Your task to perform on an android device: Go to battery settings Image 0: 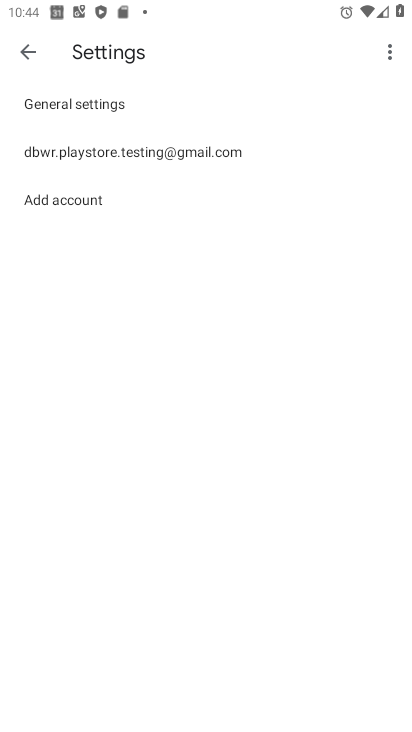
Step 0: press home button
Your task to perform on an android device: Go to battery settings Image 1: 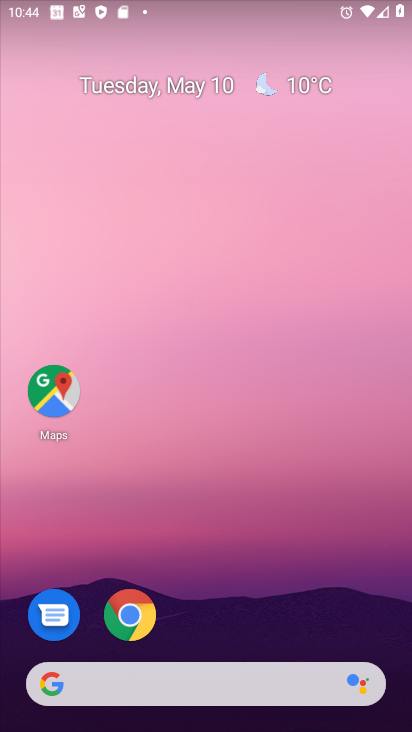
Step 1: drag from (221, 635) to (232, 468)
Your task to perform on an android device: Go to battery settings Image 2: 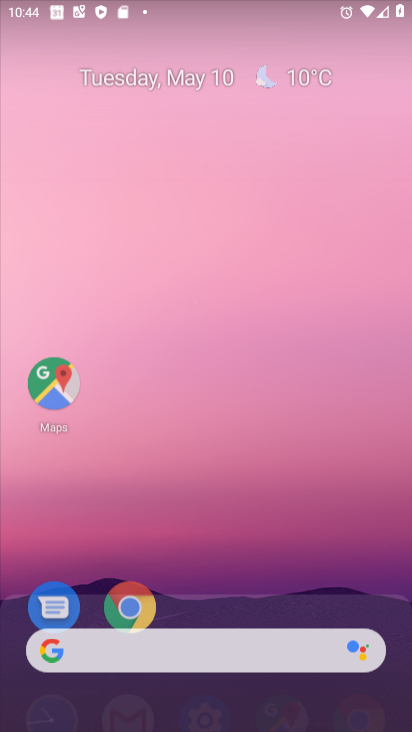
Step 2: drag from (256, 121) to (259, 76)
Your task to perform on an android device: Go to battery settings Image 3: 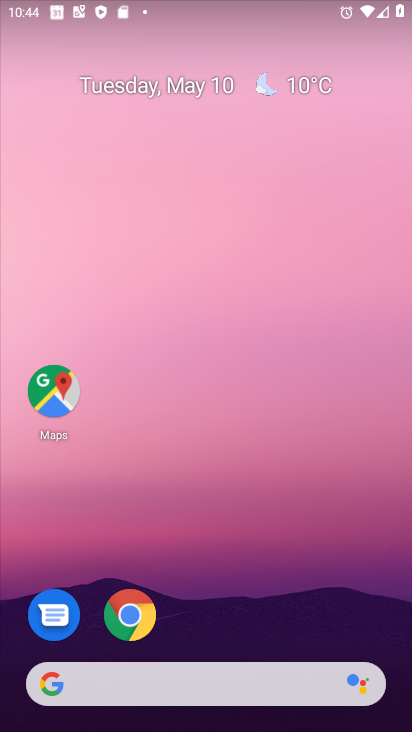
Step 3: drag from (220, 651) to (234, 108)
Your task to perform on an android device: Go to battery settings Image 4: 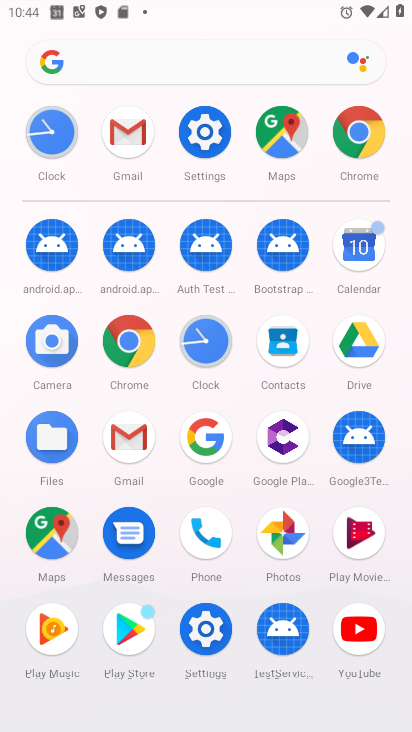
Step 4: click (202, 130)
Your task to perform on an android device: Go to battery settings Image 5: 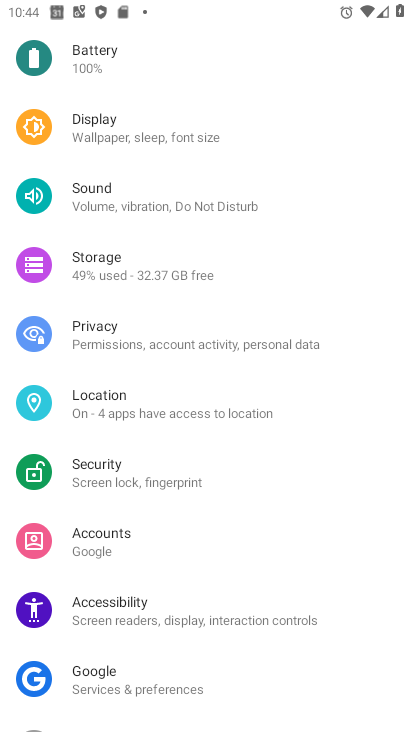
Step 5: click (133, 59)
Your task to perform on an android device: Go to battery settings Image 6: 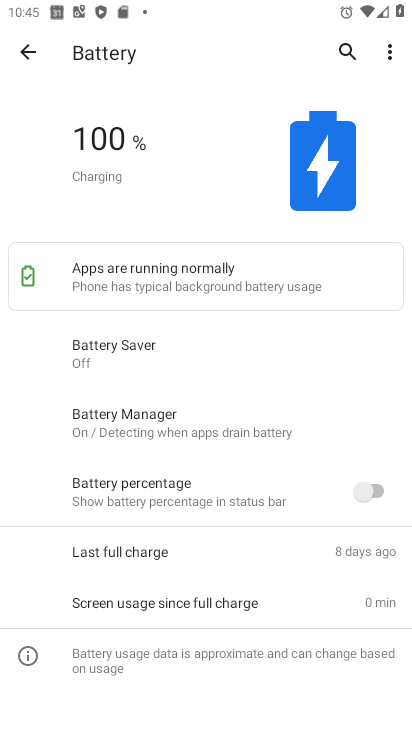
Step 6: task complete